Your task to perform on an android device: turn off location Image 0: 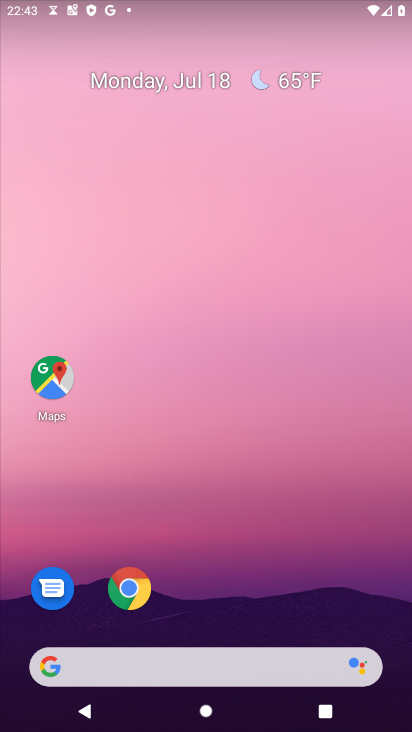
Step 0: drag from (179, 672) to (229, 186)
Your task to perform on an android device: turn off location Image 1: 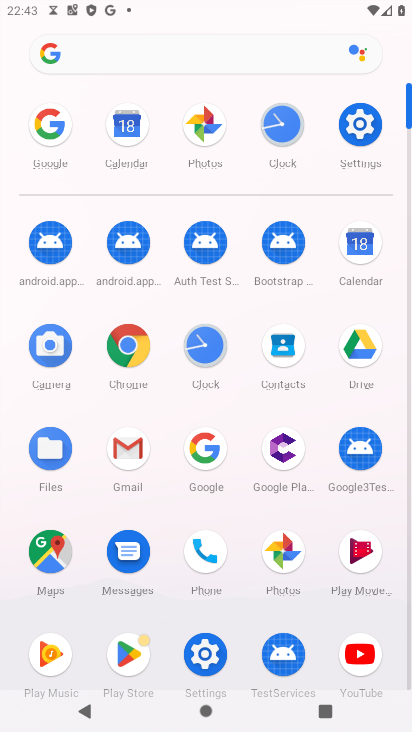
Step 1: click (205, 656)
Your task to perform on an android device: turn off location Image 2: 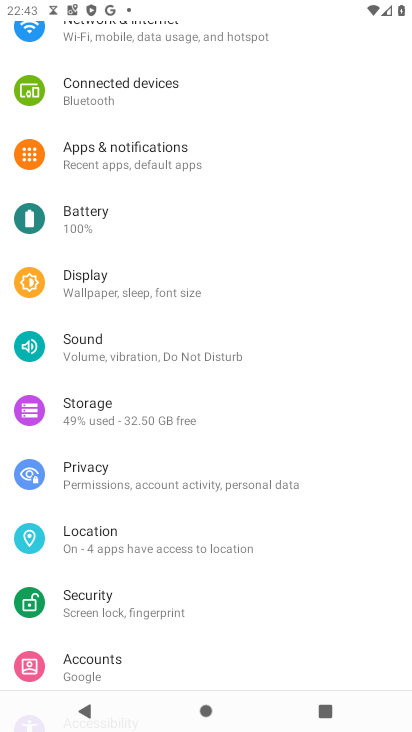
Step 2: click (132, 543)
Your task to perform on an android device: turn off location Image 3: 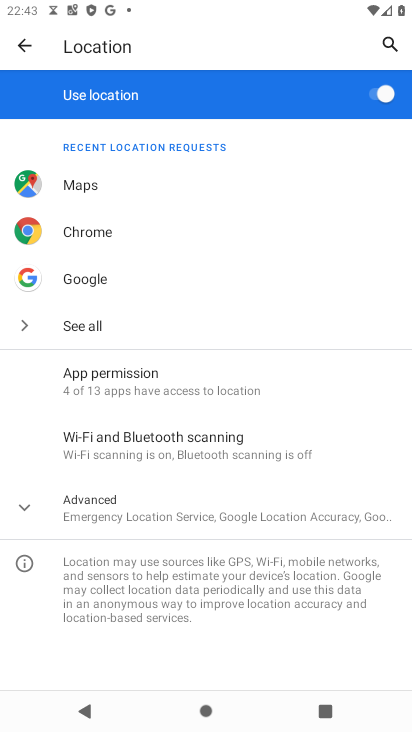
Step 3: click (374, 92)
Your task to perform on an android device: turn off location Image 4: 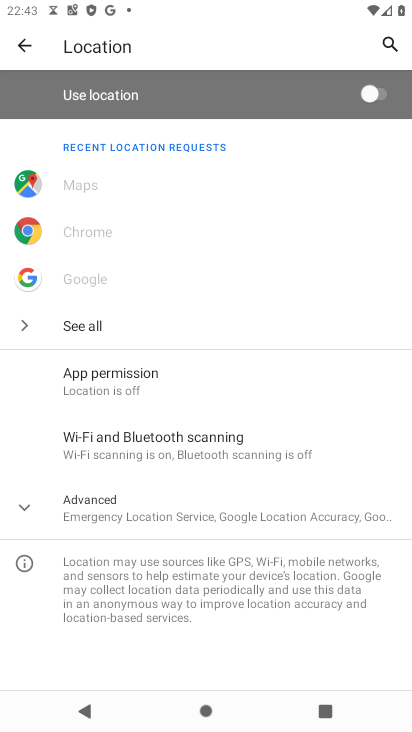
Step 4: task complete